Your task to perform on an android device: set the timer Image 0: 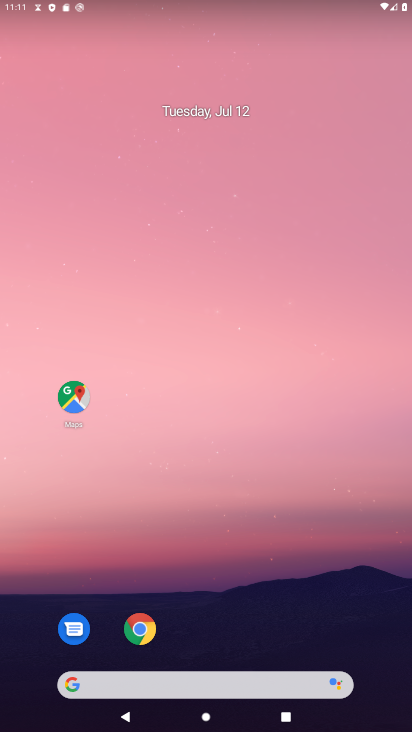
Step 0: drag from (388, 421) to (363, 22)
Your task to perform on an android device: set the timer Image 1: 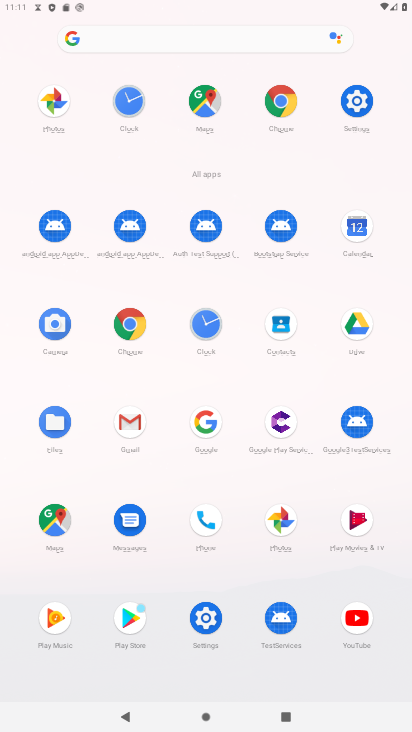
Step 1: click (213, 321)
Your task to perform on an android device: set the timer Image 2: 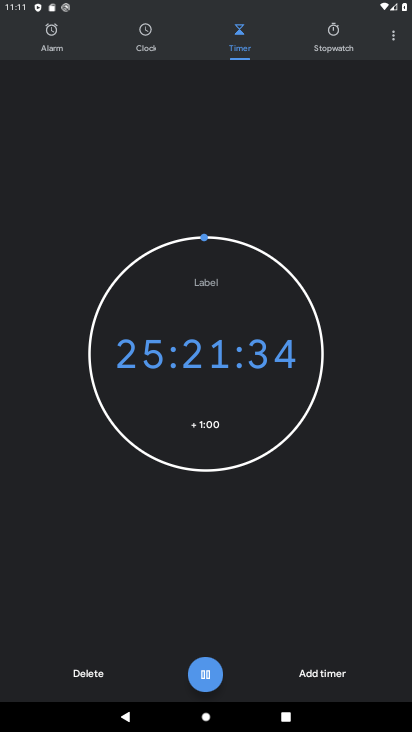
Step 2: task complete